Your task to perform on an android device: toggle translation in the chrome app Image 0: 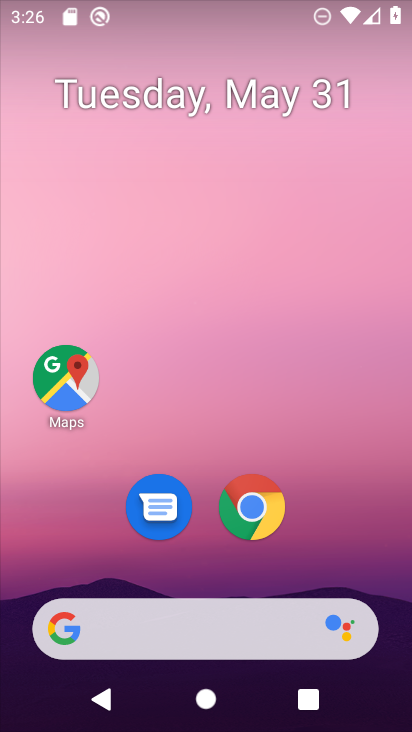
Step 0: click (258, 511)
Your task to perform on an android device: toggle translation in the chrome app Image 1: 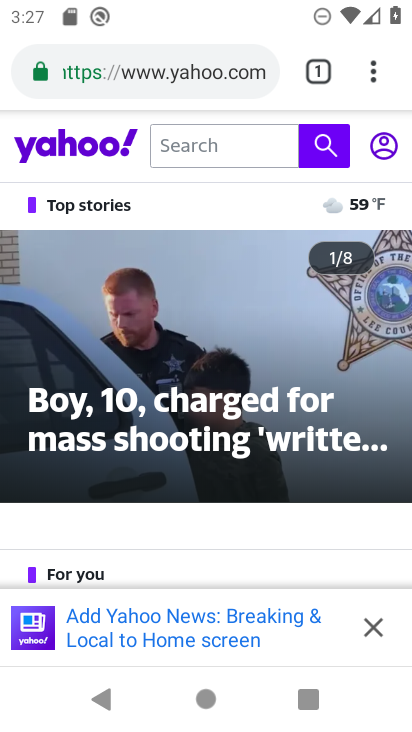
Step 1: click (367, 78)
Your task to perform on an android device: toggle translation in the chrome app Image 2: 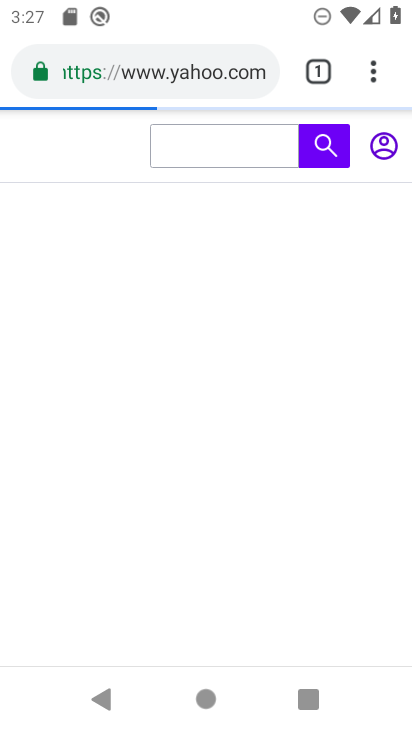
Step 2: click (374, 71)
Your task to perform on an android device: toggle translation in the chrome app Image 3: 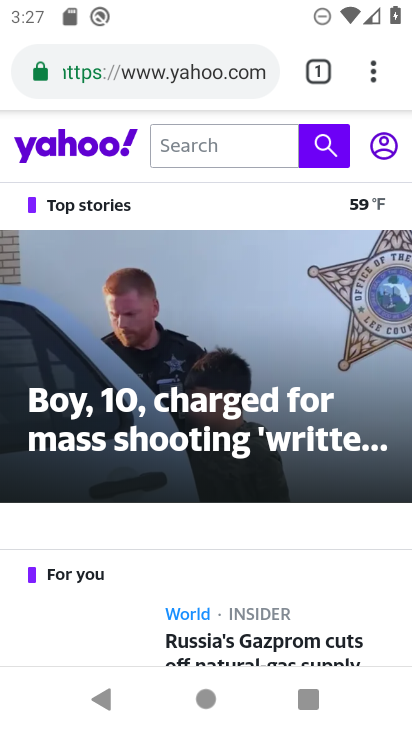
Step 3: click (372, 66)
Your task to perform on an android device: toggle translation in the chrome app Image 4: 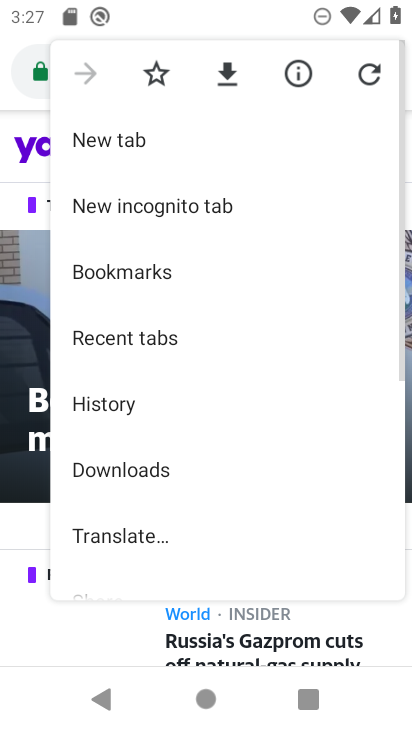
Step 4: drag from (98, 558) to (128, 199)
Your task to perform on an android device: toggle translation in the chrome app Image 5: 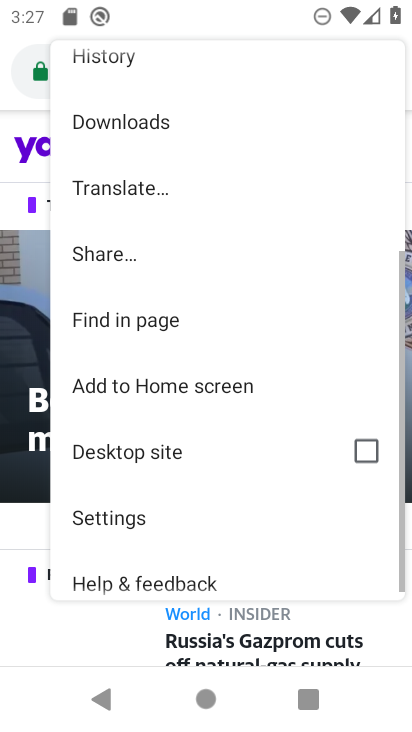
Step 5: click (118, 516)
Your task to perform on an android device: toggle translation in the chrome app Image 6: 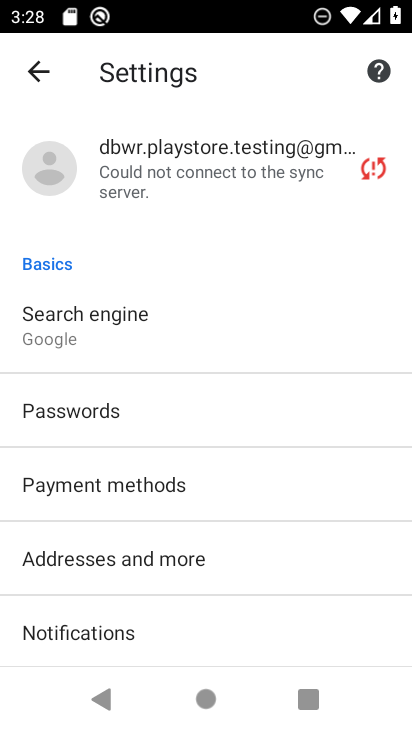
Step 6: drag from (190, 598) to (223, 238)
Your task to perform on an android device: toggle translation in the chrome app Image 7: 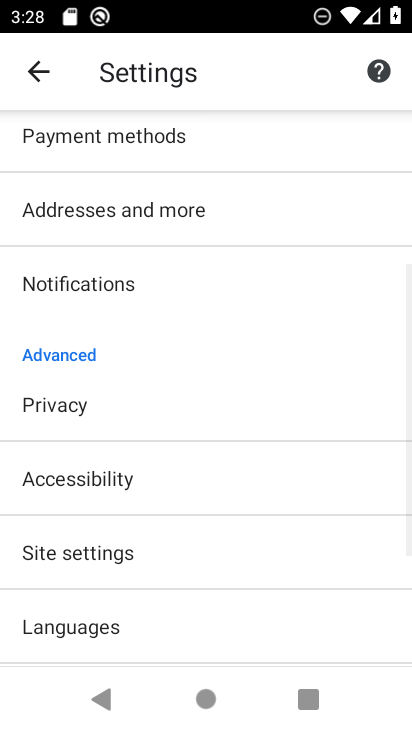
Step 7: click (96, 631)
Your task to perform on an android device: toggle translation in the chrome app Image 8: 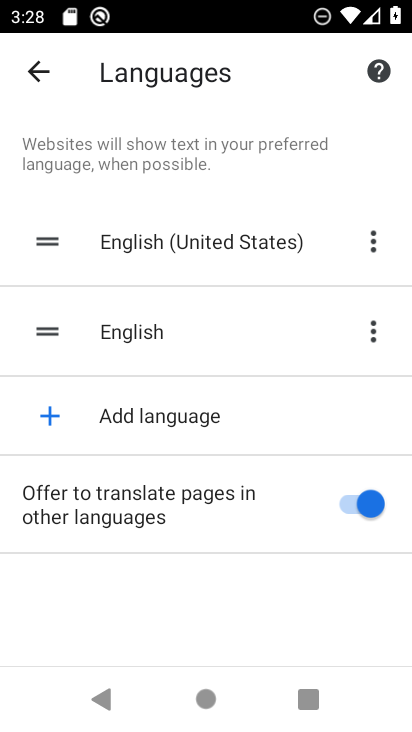
Step 8: click (364, 496)
Your task to perform on an android device: toggle translation in the chrome app Image 9: 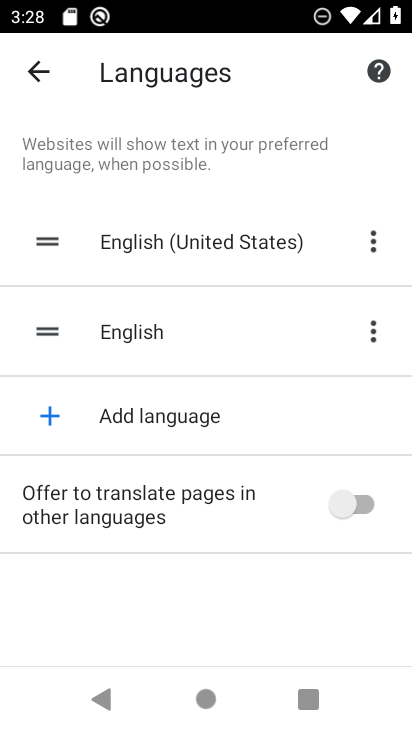
Step 9: task complete